Your task to perform on an android device: toggle javascript in the chrome app Image 0: 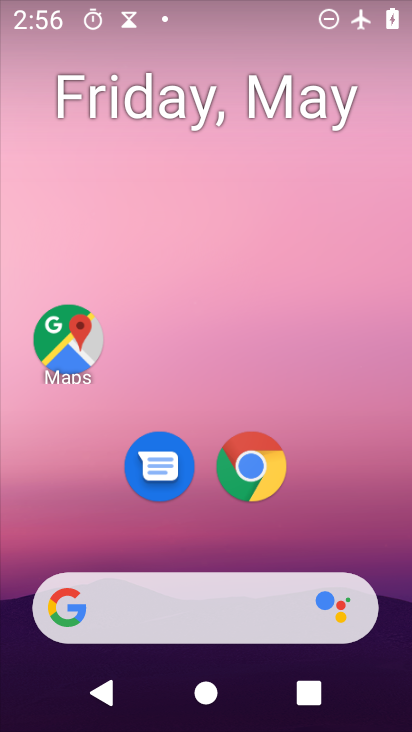
Step 0: drag from (341, 524) to (375, 38)
Your task to perform on an android device: toggle javascript in the chrome app Image 1: 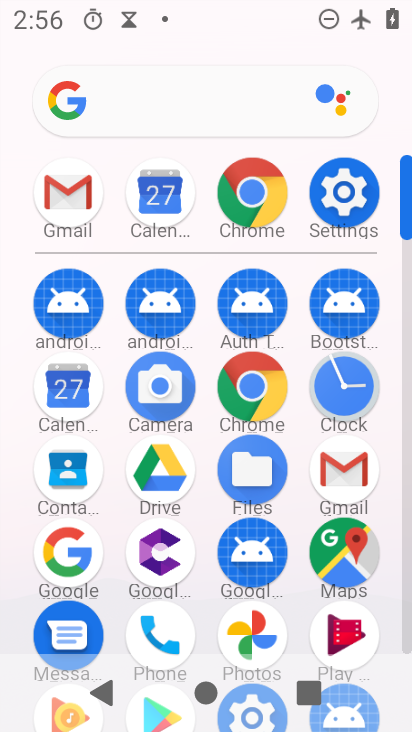
Step 1: click (227, 184)
Your task to perform on an android device: toggle javascript in the chrome app Image 2: 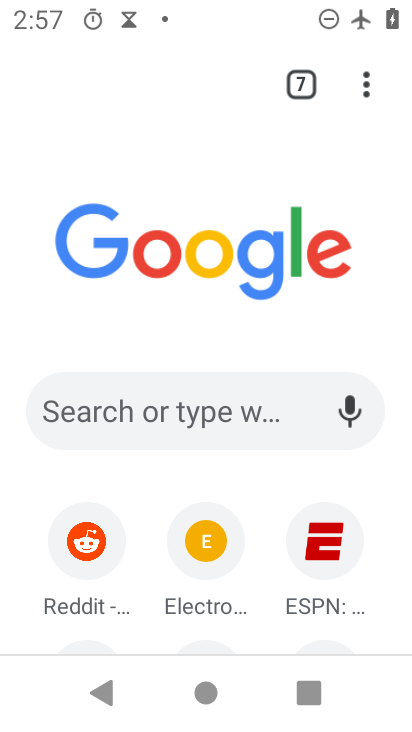
Step 2: drag from (372, 94) to (148, 528)
Your task to perform on an android device: toggle javascript in the chrome app Image 3: 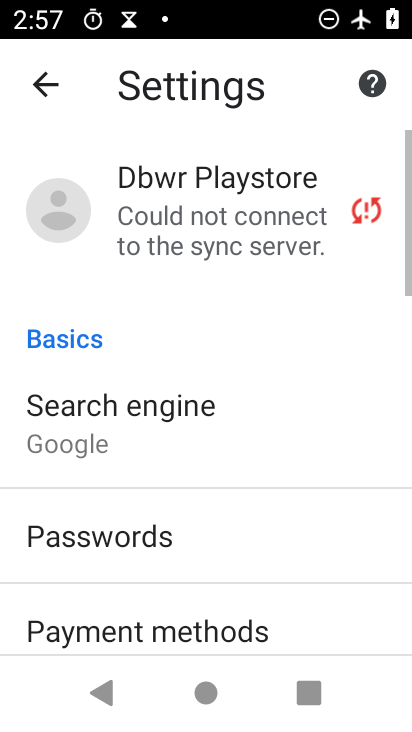
Step 3: drag from (164, 516) to (250, 108)
Your task to perform on an android device: toggle javascript in the chrome app Image 4: 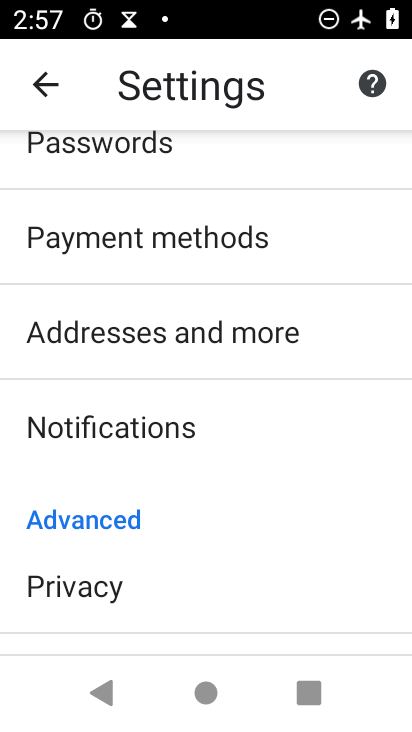
Step 4: drag from (258, 554) to (330, 154)
Your task to perform on an android device: toggle javascript in the chrome app Image 5: 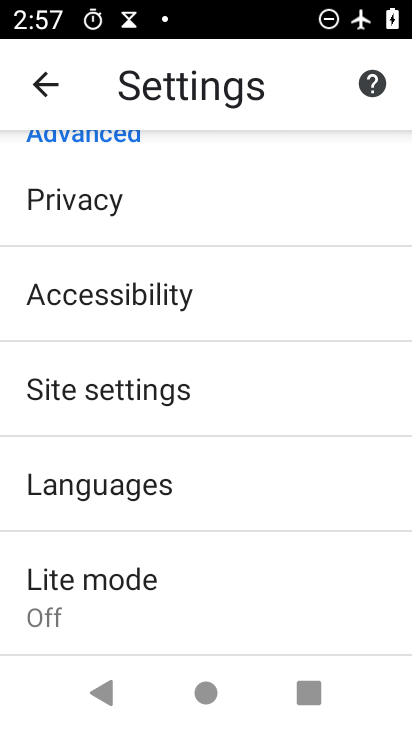
Step 5: click (118, 397)
Your task to perform on an android device: toggle javascript in the chrome app Image 6: 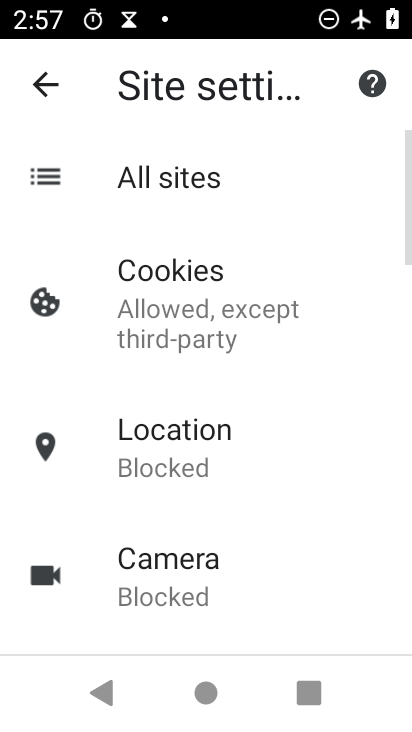
Step 6: drag from (186, 597) to (268, 174)
Your task to perform on an android device: toggle javascript in the chrome app Image 7: 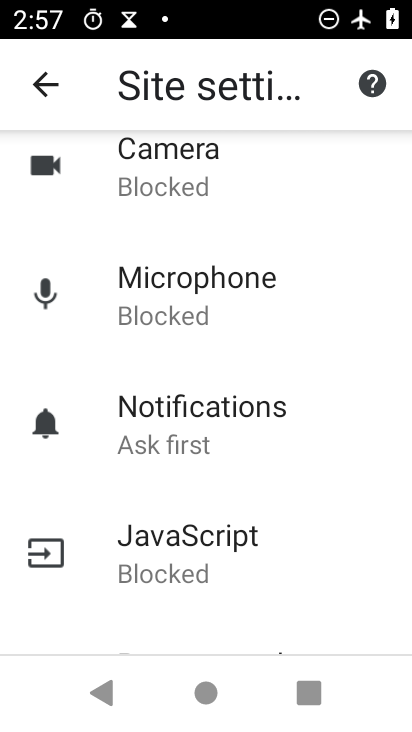
Step 7: drag from (254, 584) to (335, 199)
Your task to perform on an android device: toggle javascript in the chrome app Image 8: 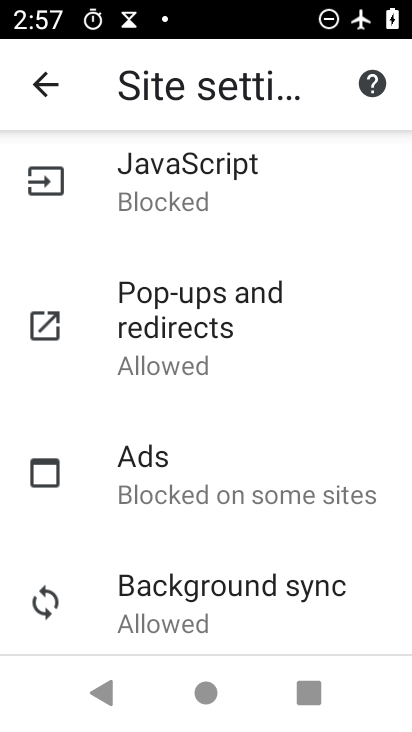
Step 8: drag from (244, 225) to (265, 553)
Your task to perform on an android device: toggle javascript in the chrome app Image 9: 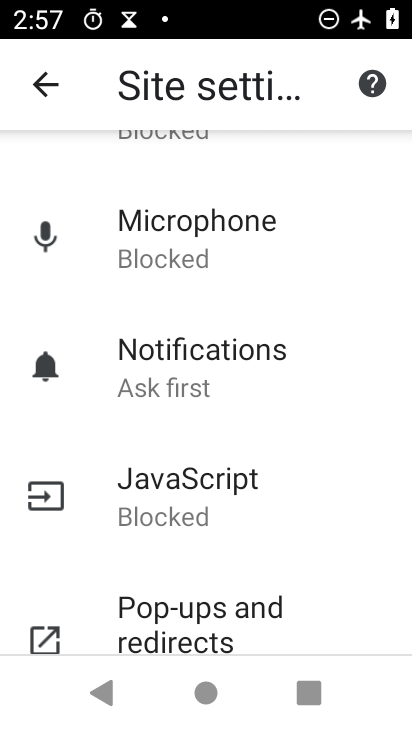
Step 9: click (195, 482)
Your task to perform on an android device: toggle javascript in the chrome app Image 10: 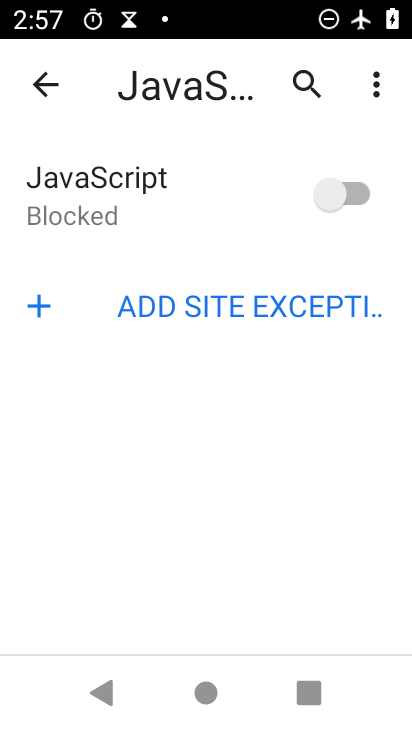
Step 10: click (357, 194)
Your task to perform on an android device: toggle javascript in the chrome app Image 11: 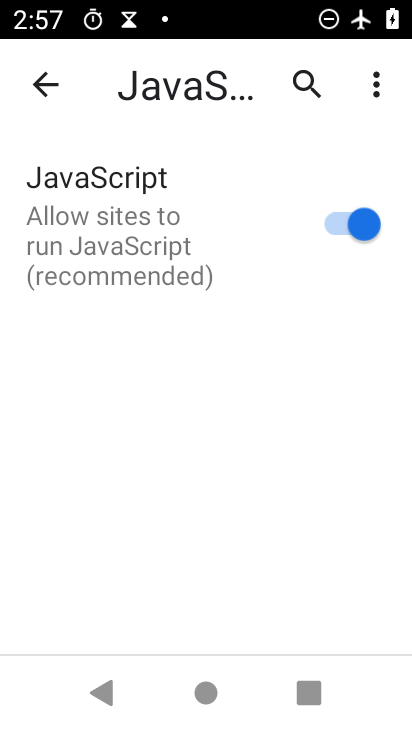
Step 11: task complete